Your task to perform on an android device: turn on notifications settings in the gmail app Image 0: 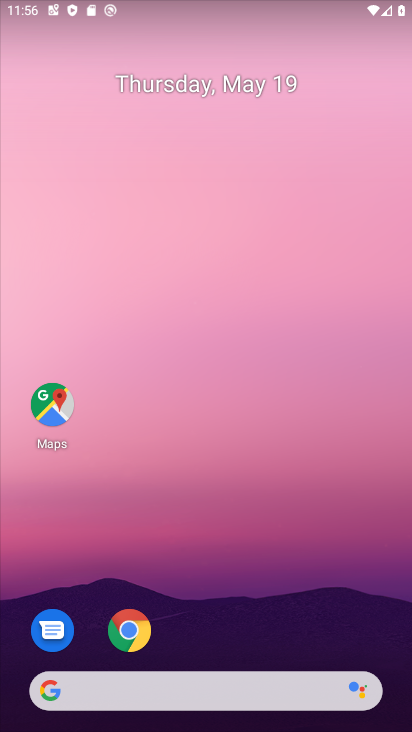
Step 0: drag from (242, 580) to (109, 46)
Your task to perform on an android device: turn on notifications settings in the gmail app Image 1: 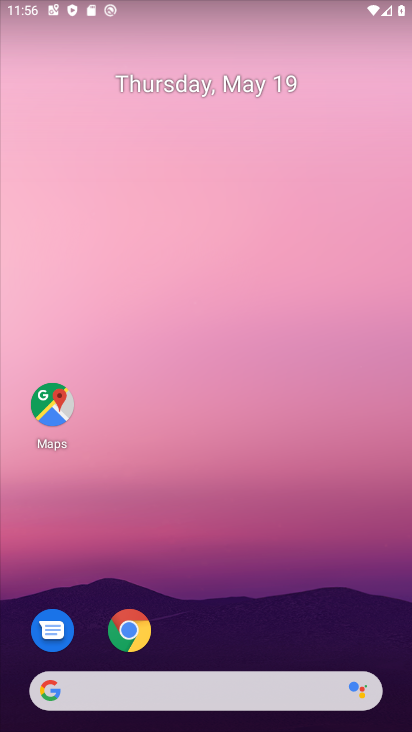
Step 1: drag from (291, 567) to (197, 43)
Your task to perform on an android device: turn on notifications settings in the gmail app Image 2: 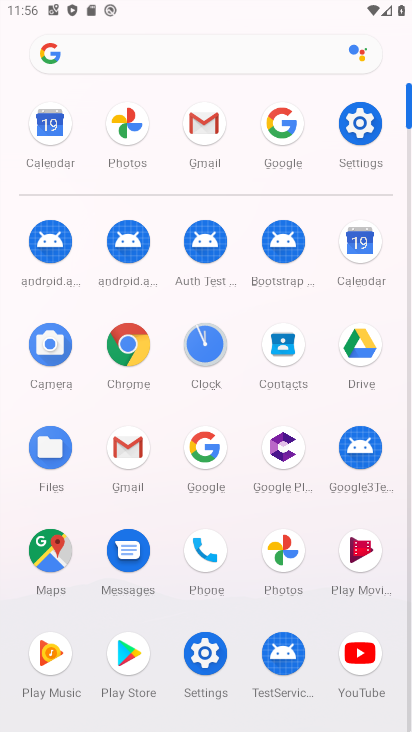
Step 2: click (204, 120)
Your task to perform on an android device: turn on notifications settings in the gmail app Image 3: 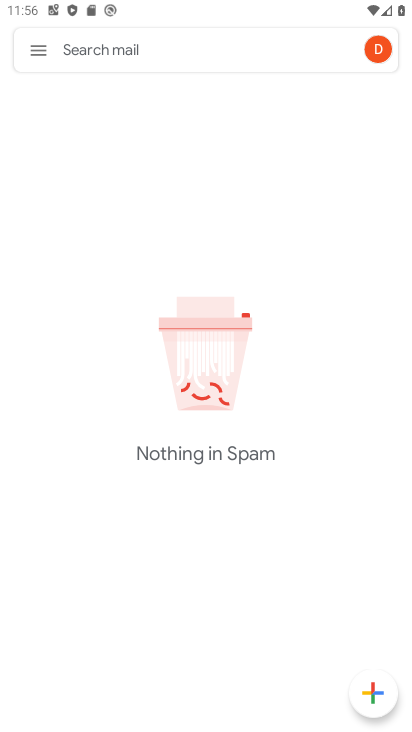
Step 3: click (38, 52)
Your task to perform on an android device: turn on notifications settings in the gmail app Image 4: 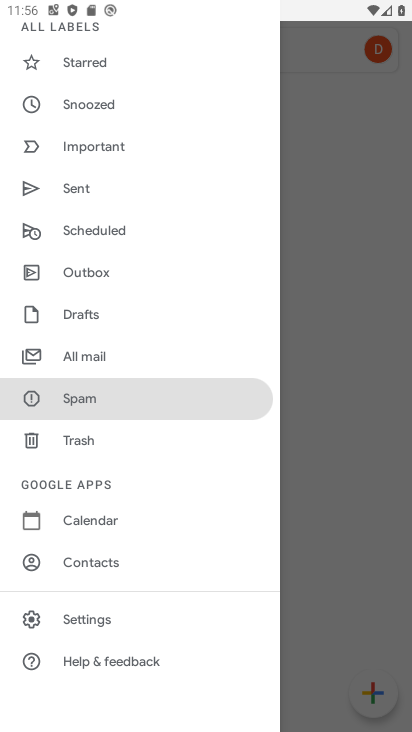
Step 4: click (88, 623)
Your task to perform on an android device: turn on notifications settings in the gmail app Image 5: 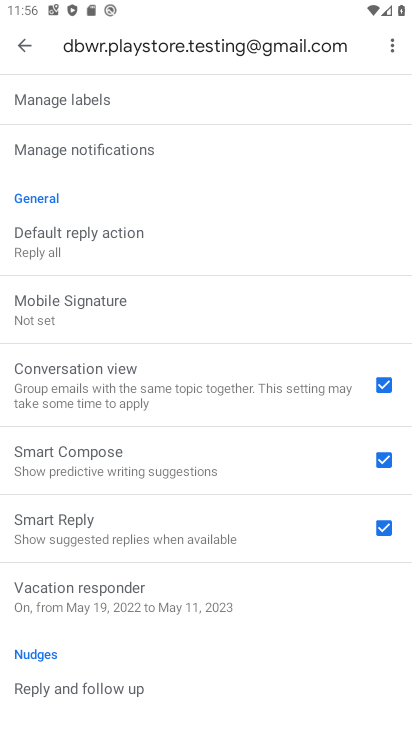
Step 5: drag from (104, 460) to (167, 323)
Your task to perform on an android device: turn on notifications settings in the gmail app Image 6: 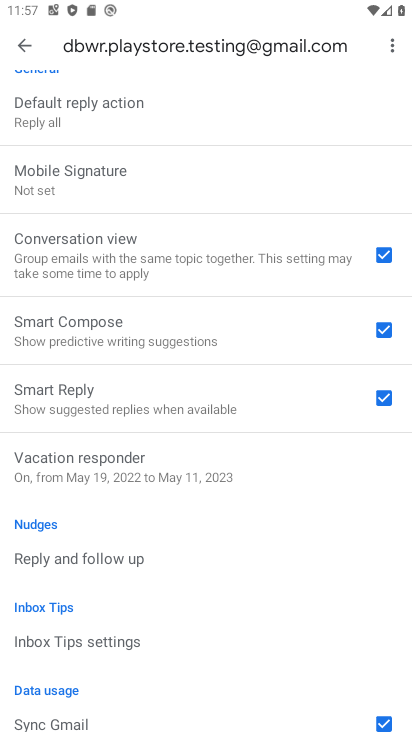
Step 6: drag from (175, 198) to (155, 348)
Your task to perform on an android device: turn on notifications settings in the gmail app Image 7: 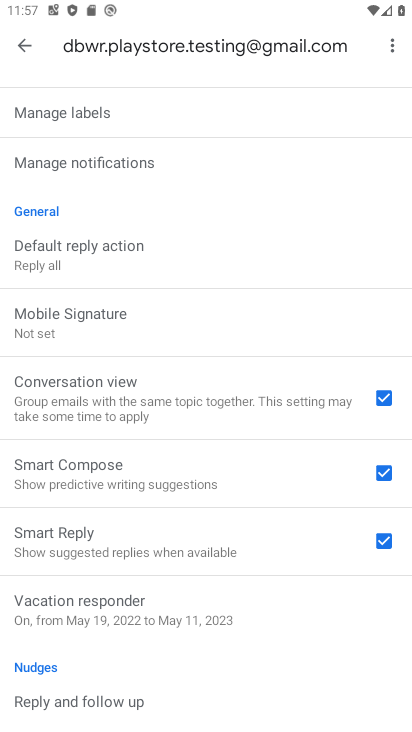
Step 7: click (68, 171)
Your task to perform on an android device: turn on notifications settings in the gmail app Image 8: 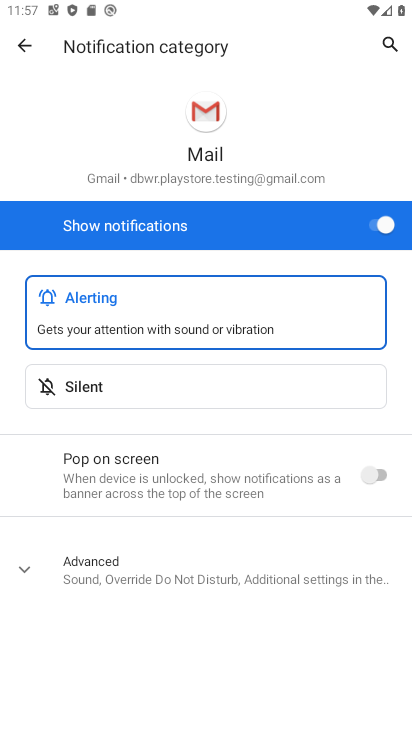
Step 8: task complete